Your task to perform on an android device: change notifications settings Image 0: 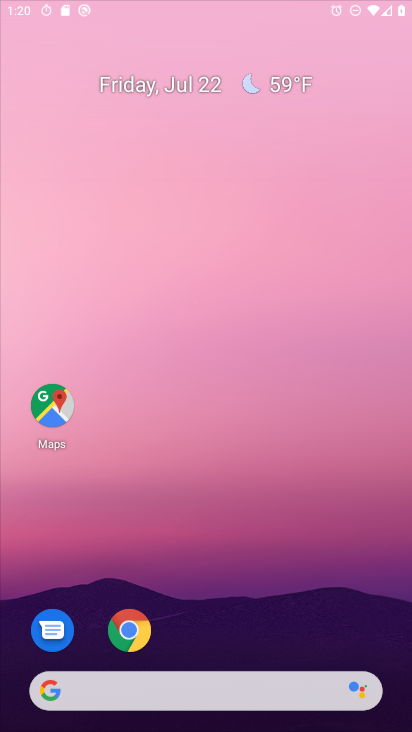
Step 0: press home button
Your task to perform on an android device: change notifications settings Image 1: 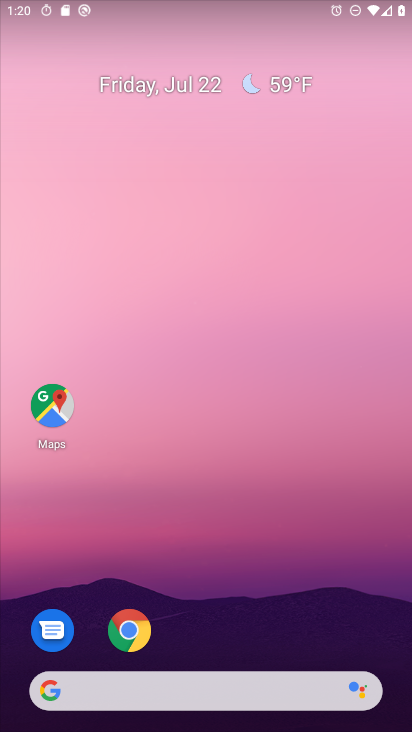
Step 1: drag from (224, 631) to (318, 21)
Your task to perform on an android device: change notifications settings Image 2: 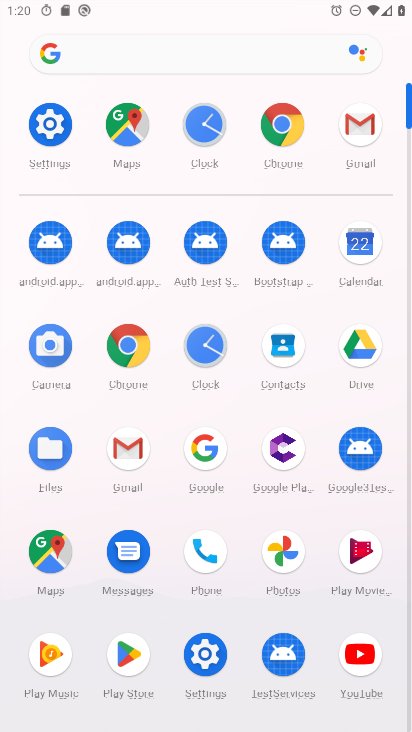
Step 2: click (42, 121)
Your task to perform on an android device: change notifications settings Image 3: 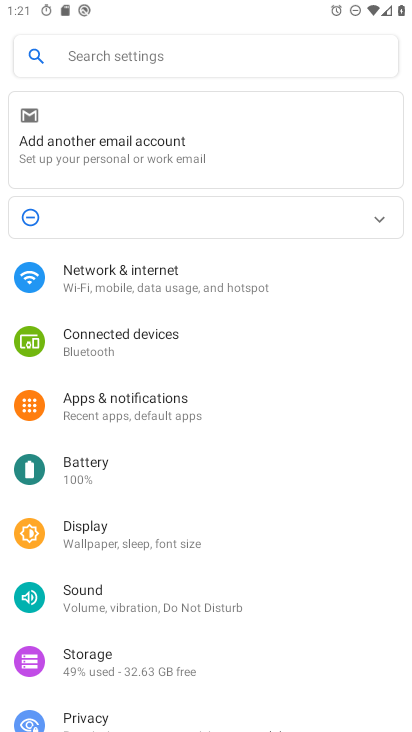
Step 3: click (122, 414)
Your task to perform on an android device: change notifications settings Image 4: 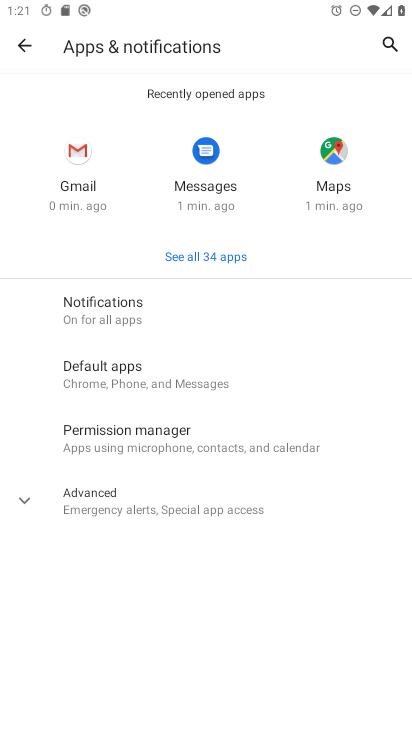
Step 4: click (85, 300)
Your task to perform on an android device: change notifications settings Image 5: 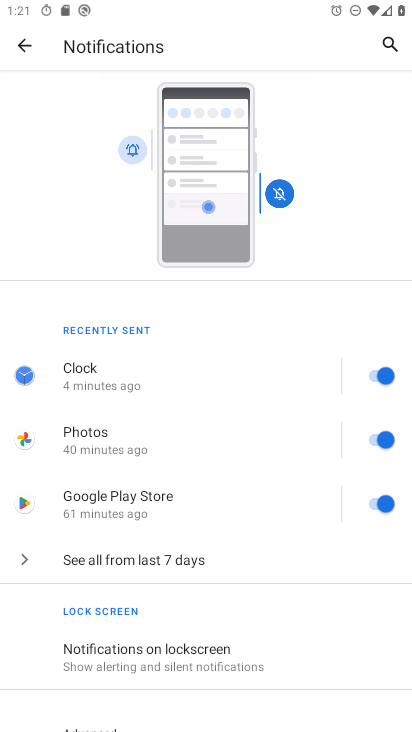
Step 5: click (118, 647)
Your task to perform on an android device: change notifications settings Image 6: 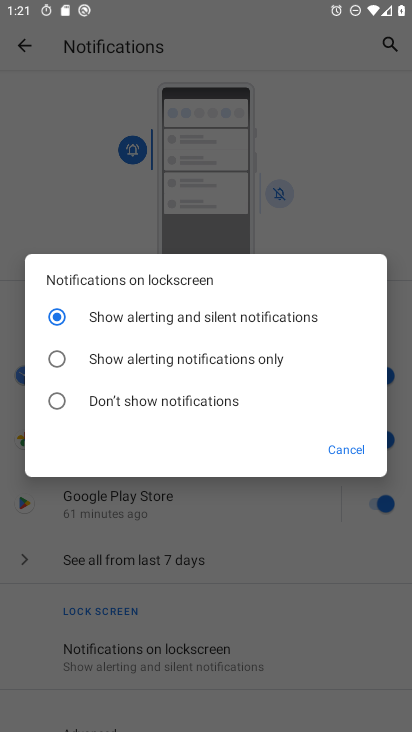
Step 6: click (51, 401)
Your task to perform on an android device: change notifications settings Image 7: 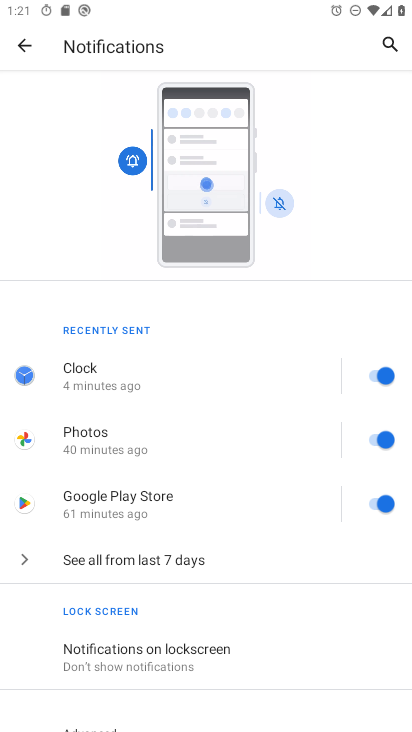
Step 7: task complete